Your task to perform on an android device: Open notification settings Image 0: 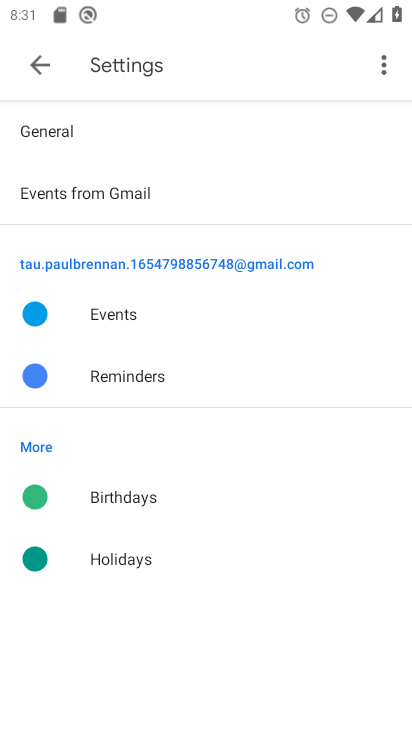
Step 0: press home button
Your task to perform on an android device: Open notification settings Image 1: 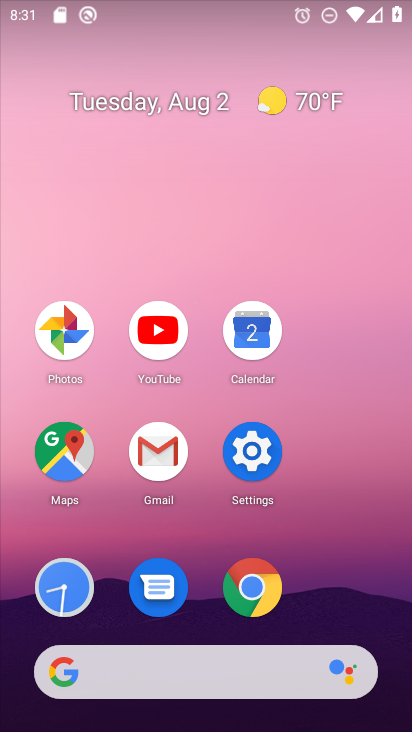
Step 1: click (251, 450)
Your task to perform on an android device: Open notification settings Image 2: 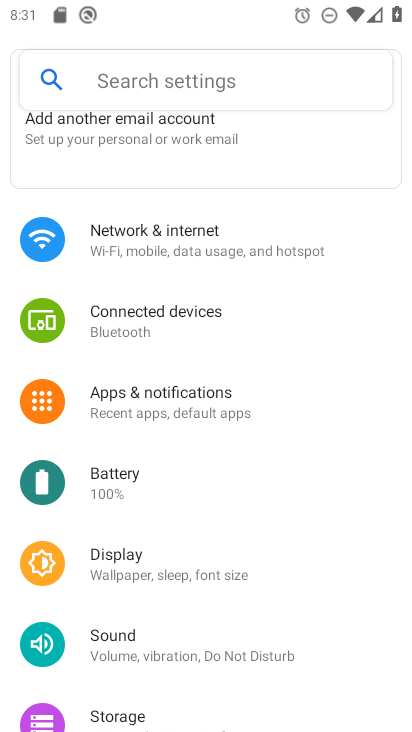
Step 2: click (134, 384)
Your task to perform on an android device: Open notification settings Image 3: 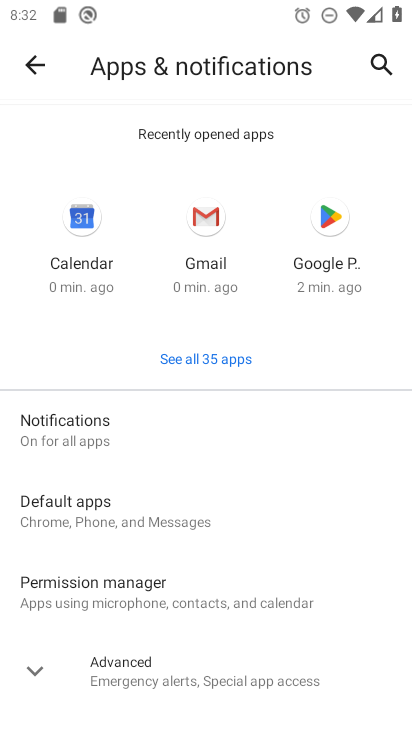
Step 3: task complete